Your task to perform on an android device: Open Google Maps Image 0: 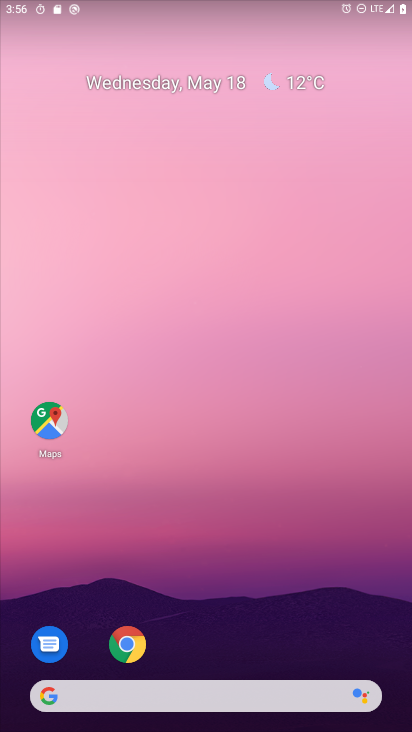
Step 0: click (50, 406)
Your task to perform on an android device: Open Google Maps Image 1: 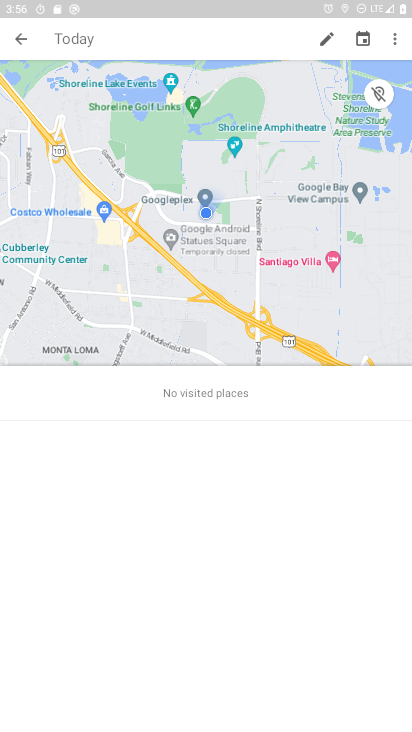
Step 1: task complete